Your task to perform on an android device: allow cookies in the chrome app Image 0: 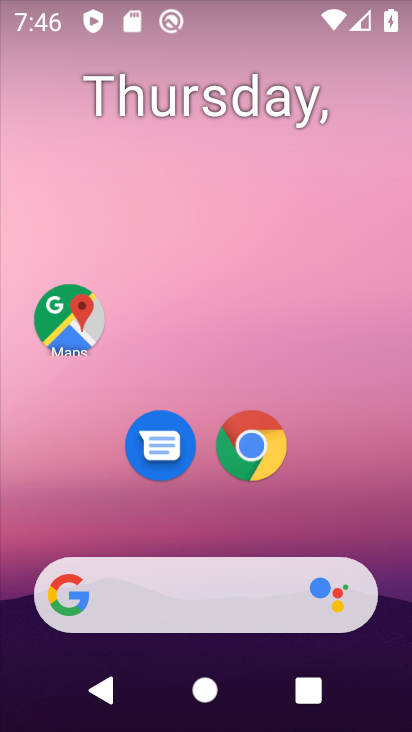
Step 0: click (264, 448)
Your task to perform on an android device: allow cookies in the chrome app Image 1: 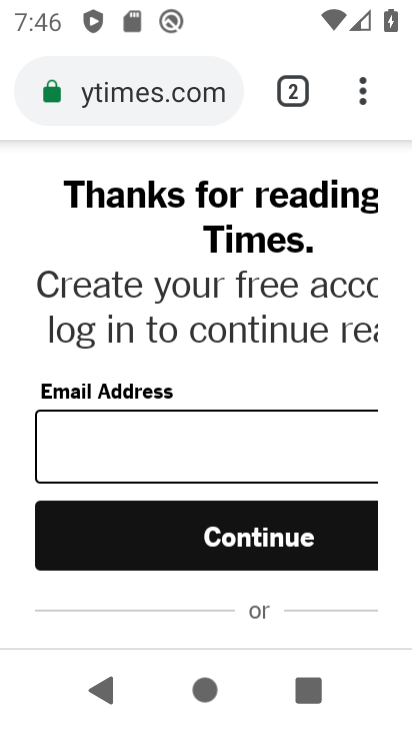
Step 1: drag from (364, 96) to (63, 480)
Your task to perform on an android device: allow cookies in the chrome app Image 2: 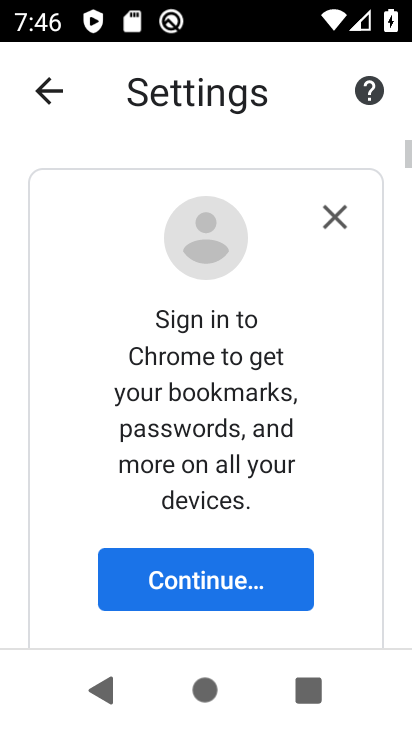
Step 2: drag from (315, 533) to (289, 89)
Your task to perform on an android device: allow cookies in the chrome app Image 3: 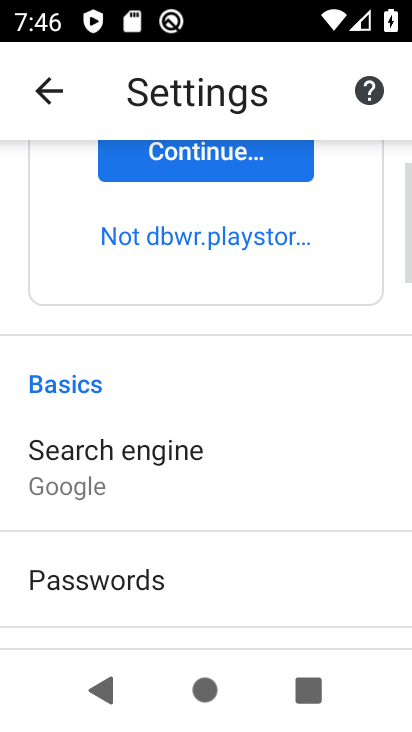
Step 3: drag from (246, 495) to (239, 87)
Your task to perform on an android device: allow cookies in the chrome app Image 4: 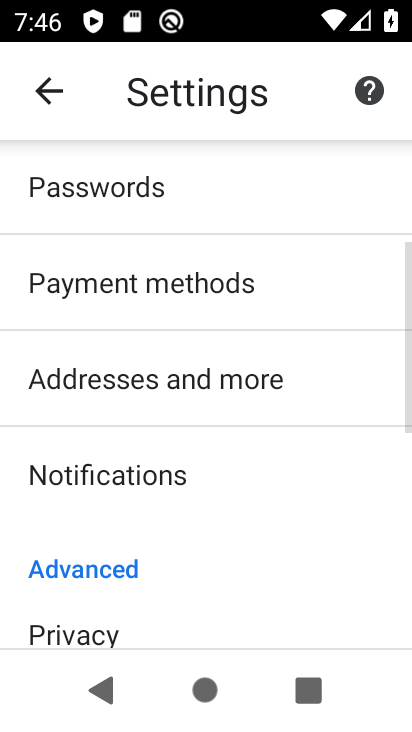
Step 4: drag from (171, 466) to (179, 105)
Your task to perform on an android device: allow cookies in the chrome app Image 5: 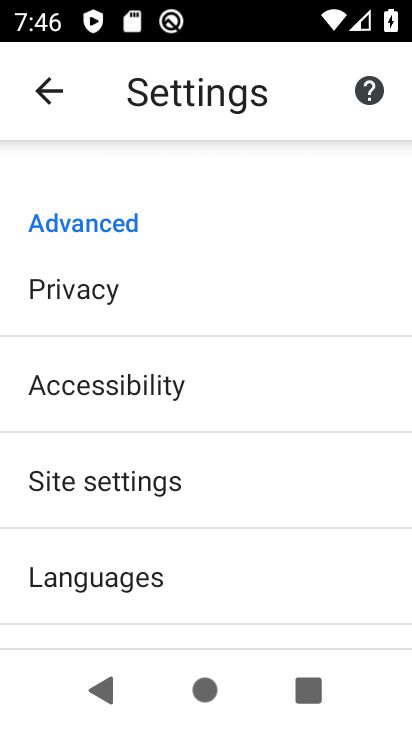
Step 5: click (118, 497)
Your task to perform on an android device: allow cookies in the chrome app Image 6: 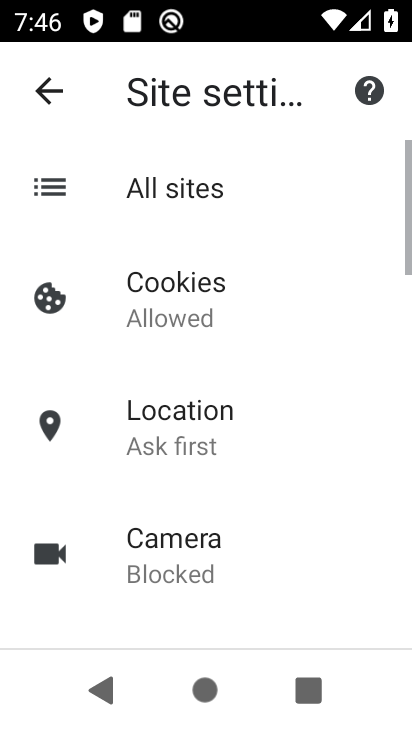
Step 6: click (126, 315)
Your task to perform on an android device: allow cookies in the chrome app Image 7: 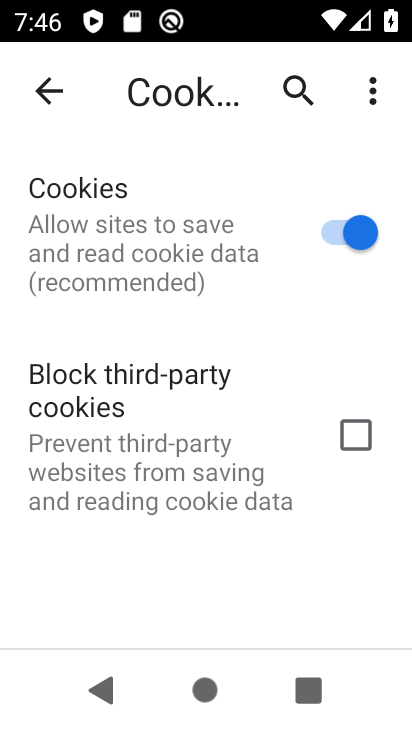
Step 7: task complete